Your task to perform on an android device: search for starred emails in the gmail app Image 0: 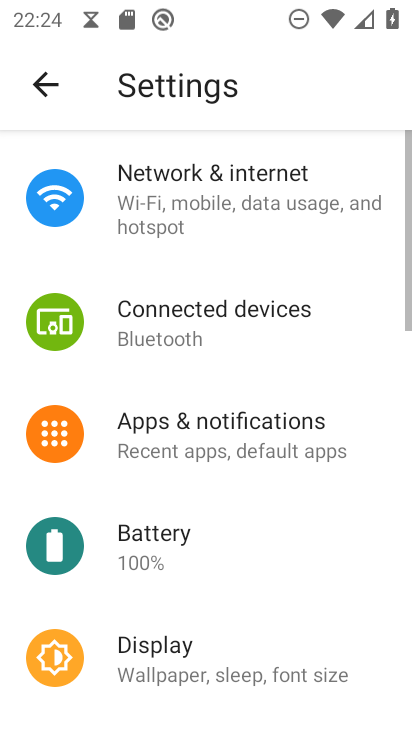
Step 0: press home button
Your task to perform on an android device: search for starred emails in the gmail app Image 1: 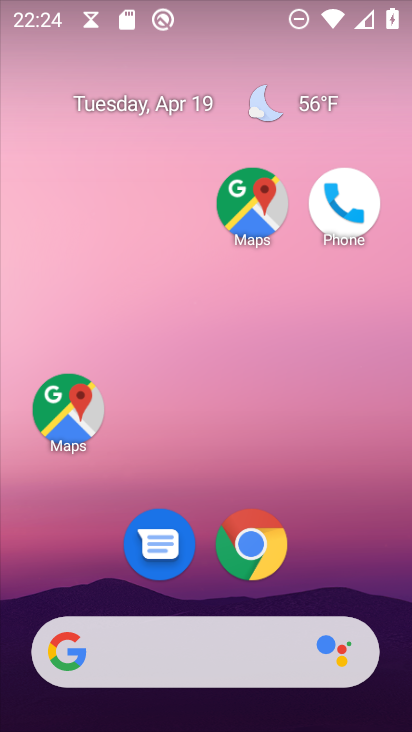
Step 1: drag from (198, 599) to (335, 130)
Your task to perform on an android device: search for starred emails in the gmail app Image 2: 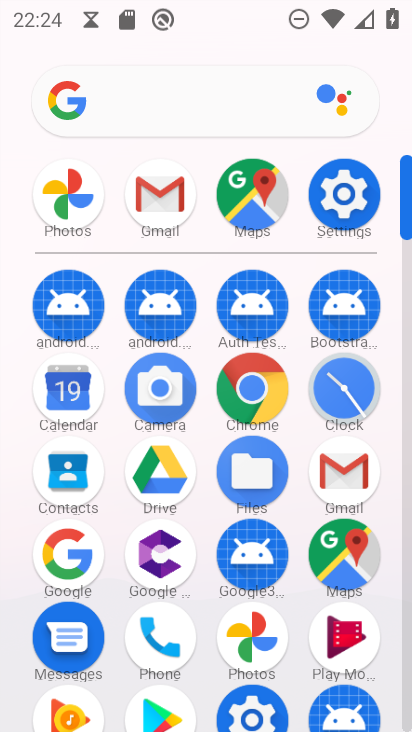
Step 2: click (161, 205)
Your task to perform on an android device: search for starred emails in the gmail app Image 3: 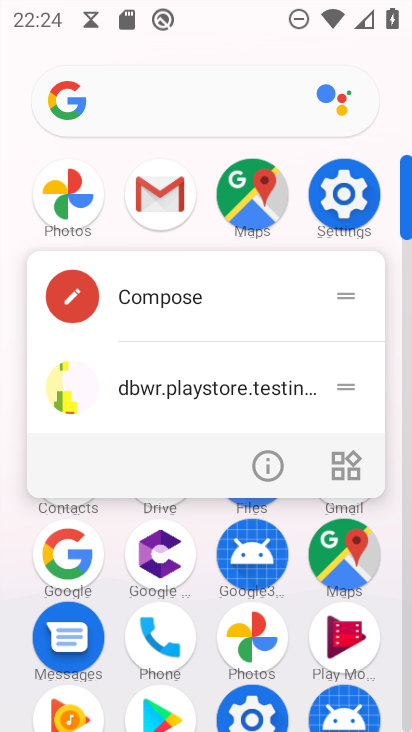
Step 3: click (159, 204)
Your task to perform on an android device: search for starred emails in the gmail app Image 4: 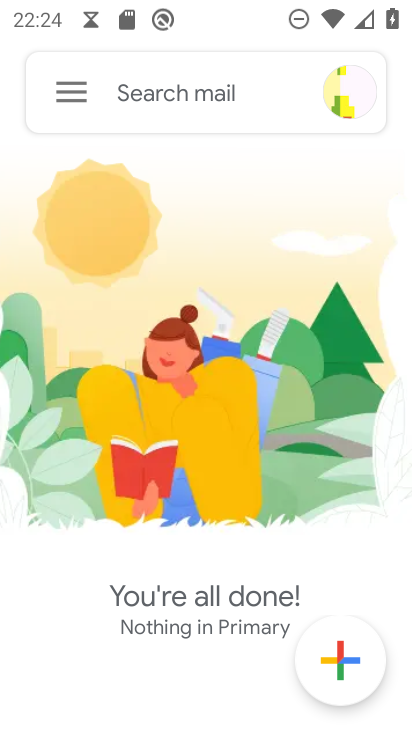
Step 4: click (74, 97)
Your task to perform on an android device: search for starred emails in the gmail app Image 5: 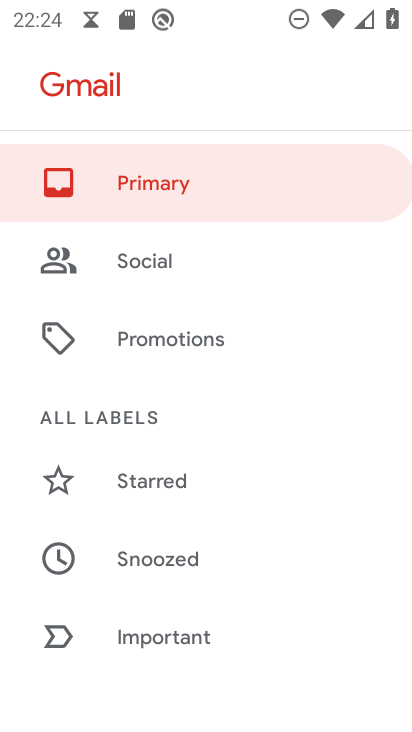
Step 5: click (158, 472)
Your task to perform on an android device: search for starred emails in the gmail app Image 6: 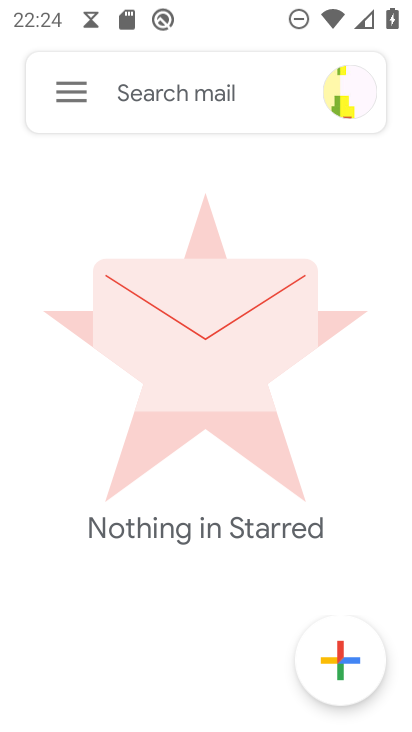
Step 6: task complete